Your task to perform on an android device: Open Google Maps and go to "Timeline" Image 0: 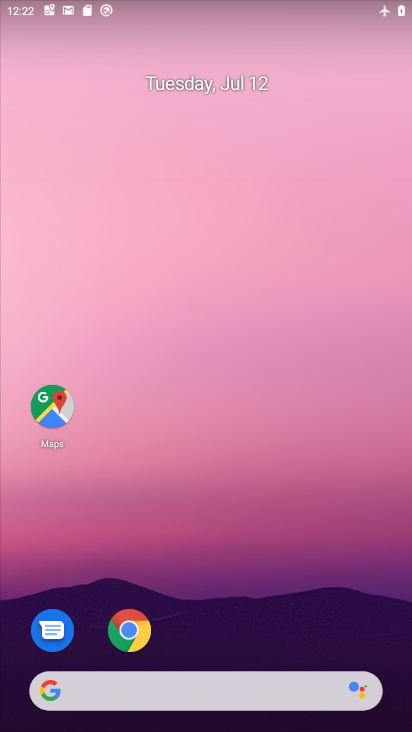
Step 0: drag from (316, 607) to (343, 42)
Your task to perform on an android device: Open Google Maps and go to "Timeline" Image 1: 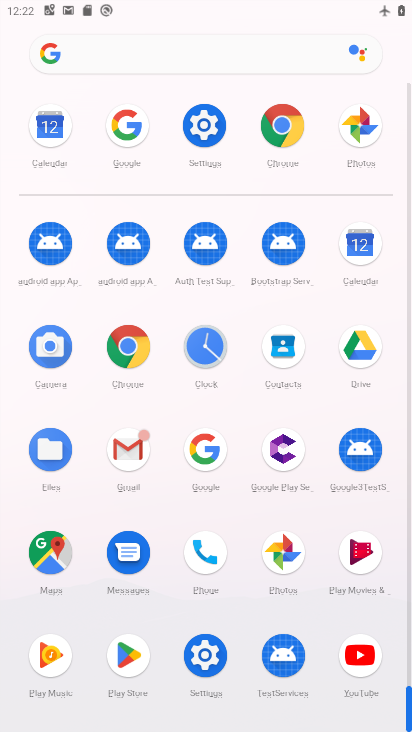
Step 1: click (201, 450)
Your task to perform on an android device: Open Google Maps and go to "Timeline" Image 2: 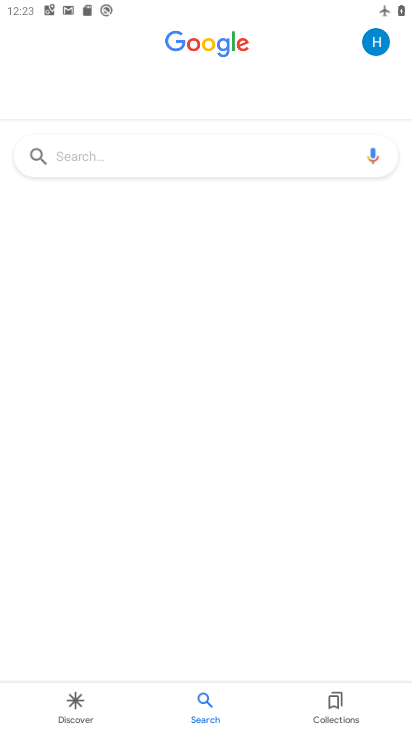
Step 2: press home button
Your task to perform on an android device: Open Google Maps and go to "Timeline" Image 3: 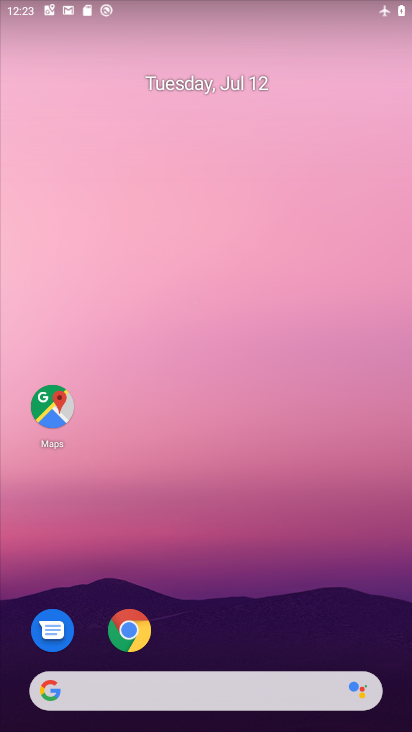
Step 3: drag from (234, 564) to (237, 127)
Your task to perform on an android device: Open Google Maps and go to "Timeline" Image 4: 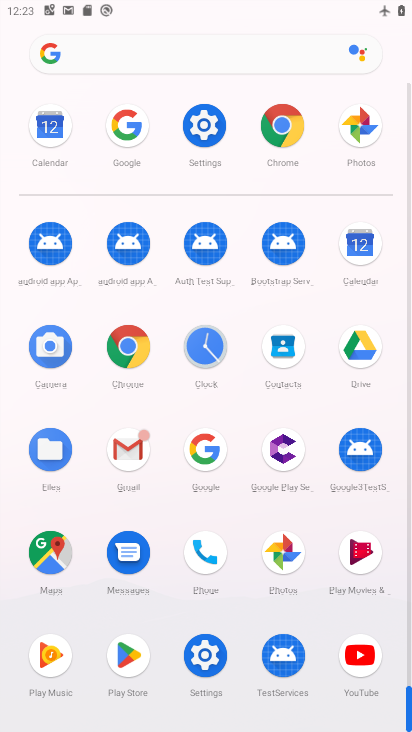
Step 4: click (58, 554)
Your task to perform on an android device: Open Google Maps and go to "Timeline" Image 5: 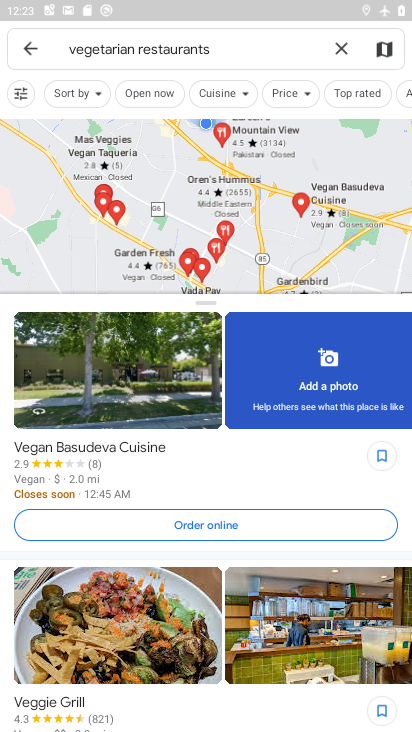
Step 5: click (29, 50)
Your task to perform on an android device: Open Google Maps and go to "Timeline" Image 6: 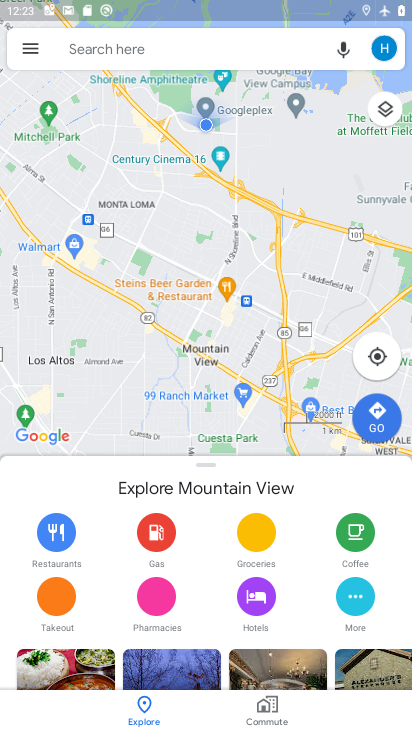
Step 6: click (36, 52)
Your task to perform on an android device: Open Google Maps and go to "Timeline" Image 7: 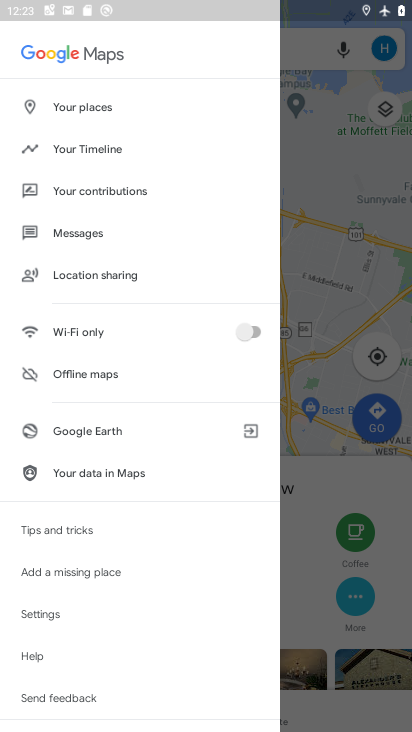
Step 7: click (95, 153)
Your task to perform on an android device: Open Google Maps and go to "Timeline" Image 8: 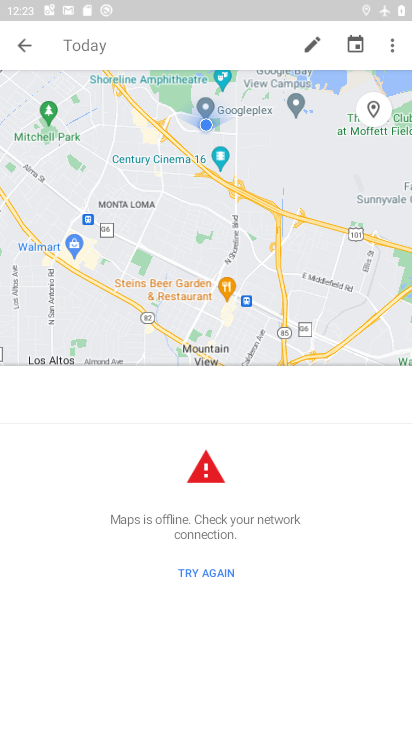
Step 8: task complete